Your task to perform on an android device: delete location history Image 0: 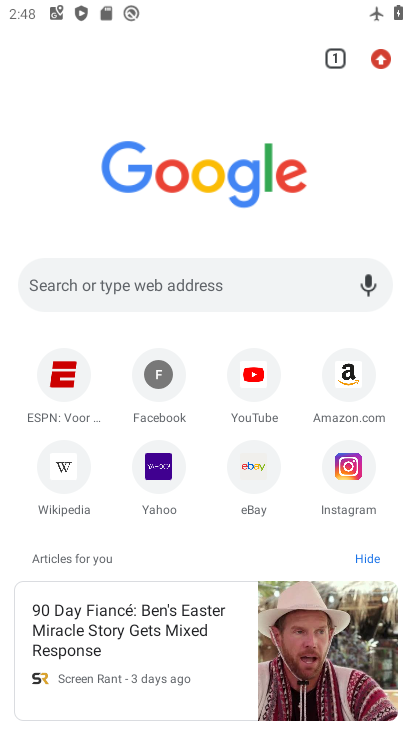
Step 0: press home button
Your task to perform on an android device: delete location history Image 1: 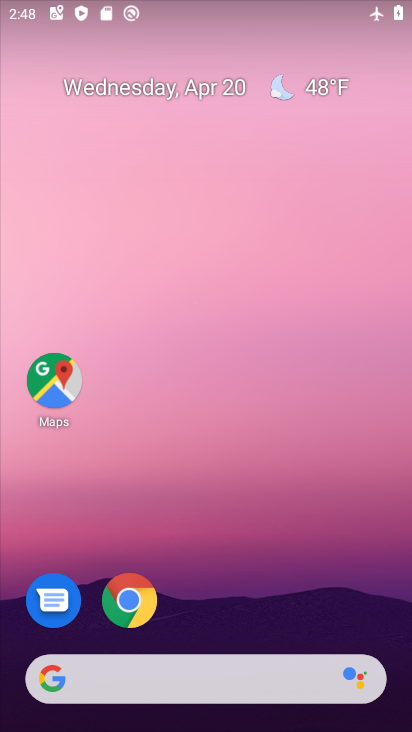
Step 1: click (28, 380)
Your task to perform on an android device: delete location history Image 2: 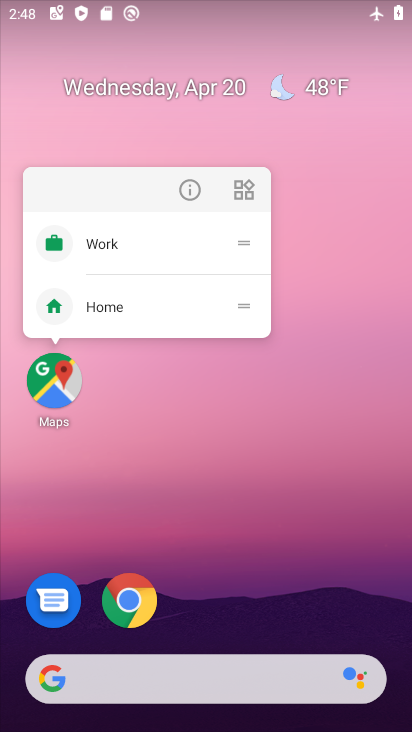
Step 2: click (28, 380)
Your task to perform on an android device: delete location history Image 3: 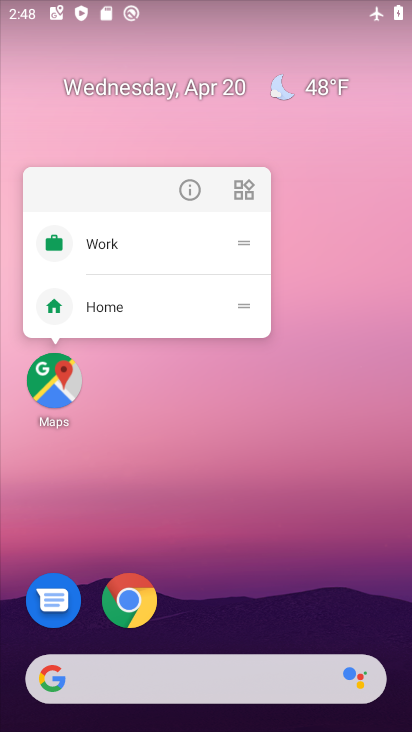
Step 3: click (43, 383)
Your task to perform on an android device: delete location history Image 4: 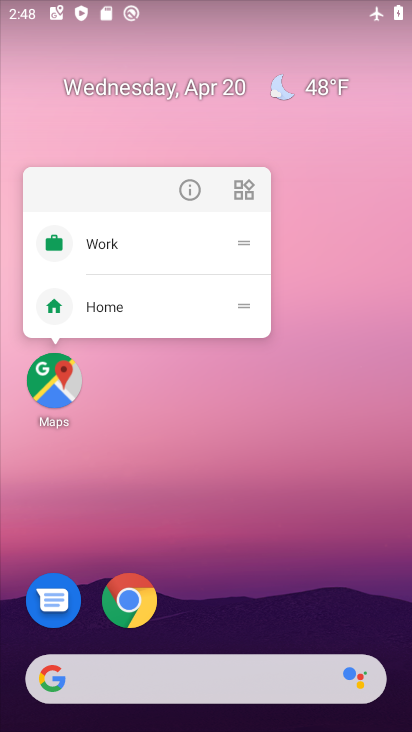
Step 4: click (44, 379)
Your task to perform on an android device: delete location history Image 5: 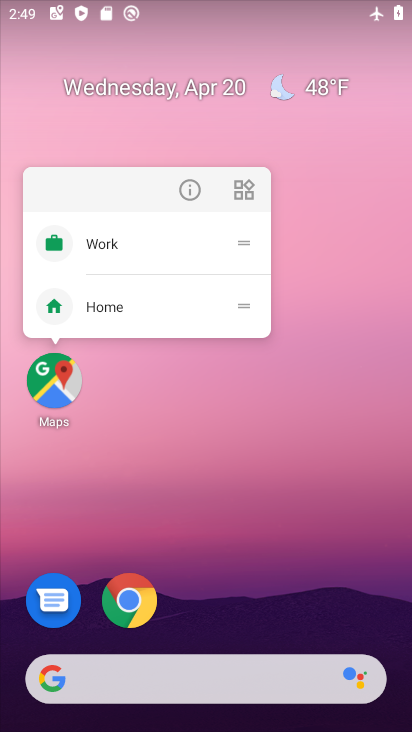
Step 5: click (44, 379)
Your task to perform on an android device: delete location history Image 6: 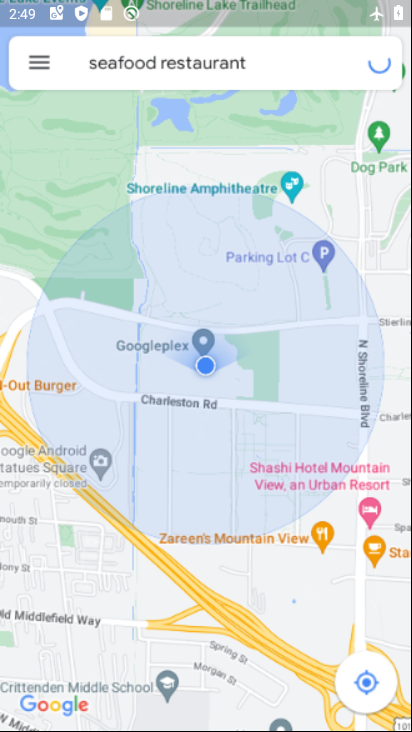
Step 6: click (44, 379)
Your task to perform on an android device: delete location history Image 7: 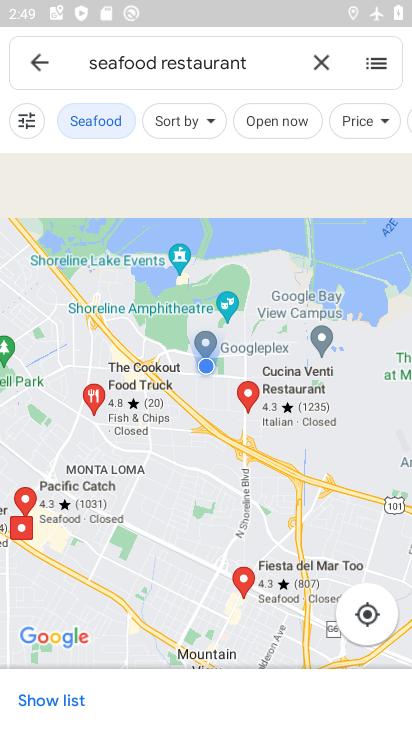
Step 7: click (325, 66)
Your task to perform on an android device: delete location history Image 8: 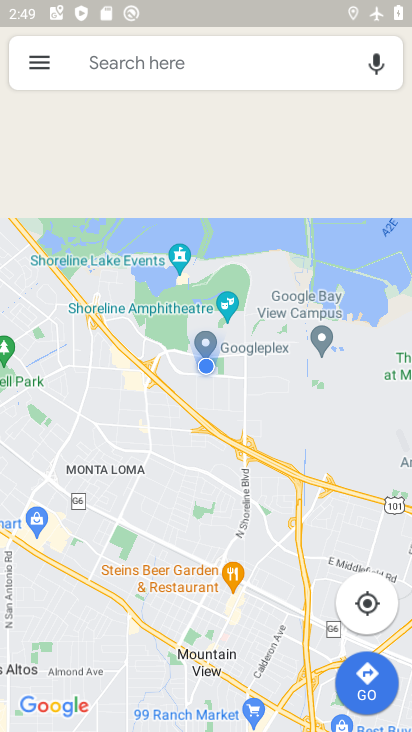
Step 8: click (28, 51)
Your task to perform on an android device: delete location history Image 9: 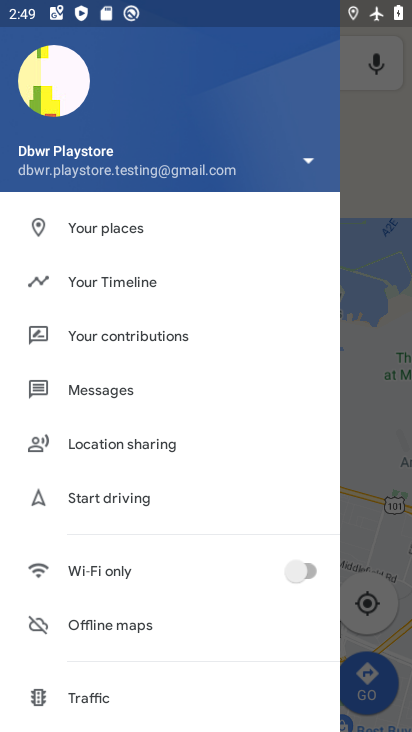
Step 9: click (116, 285)
Your task to perform on an android device: delete location history Image 10: 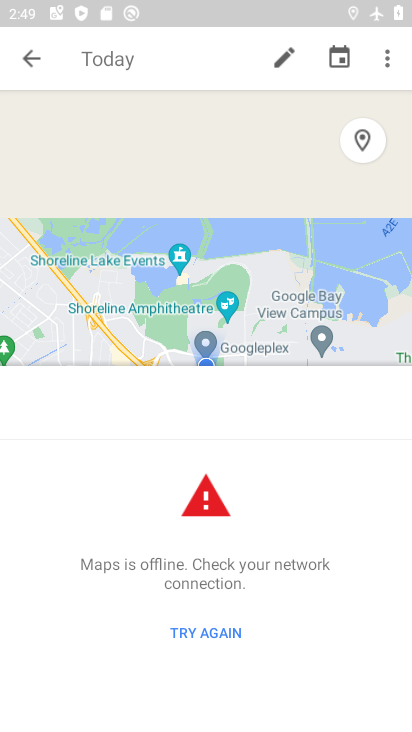
Step 10: click (382, 62)
Your task to perform on an android device: delete location history Image 11: 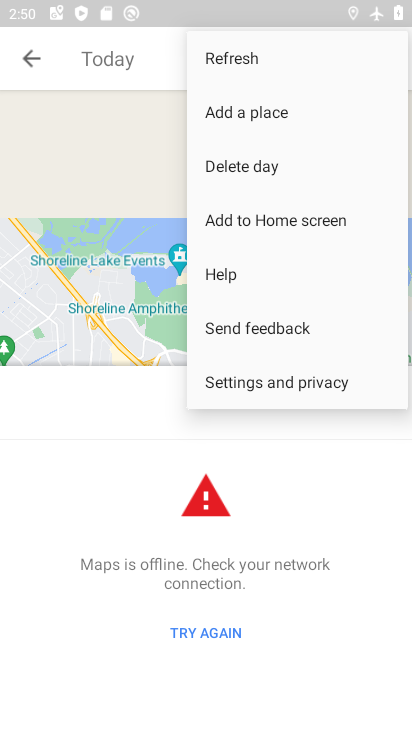
Step 11: click (244, 388)
Your task to perform on an android device: delete location history Image 12: 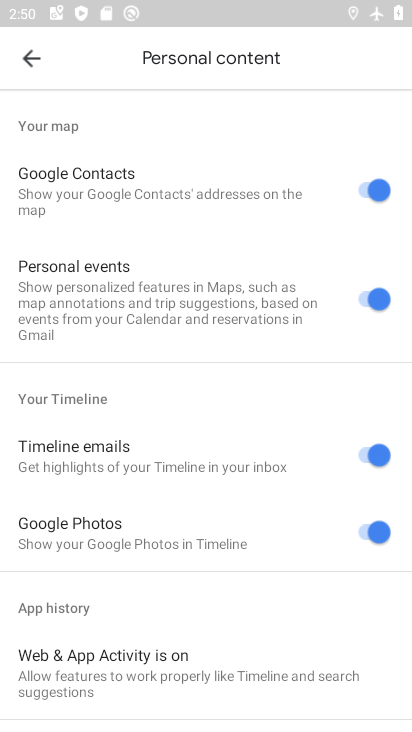
Step 12: drag from (124, 602) to (147, 203)
Your task to perform on an android device: delete location history Image 13: 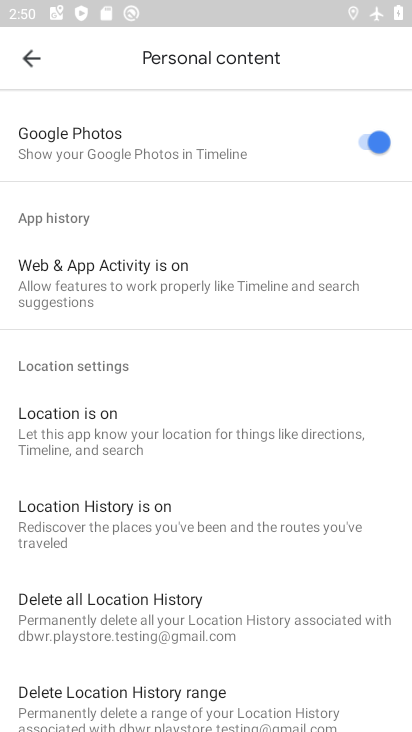
Step 13: drag from (127, 486) to (172, 195)
Your task to perform on an android device: delete location history Image 14: 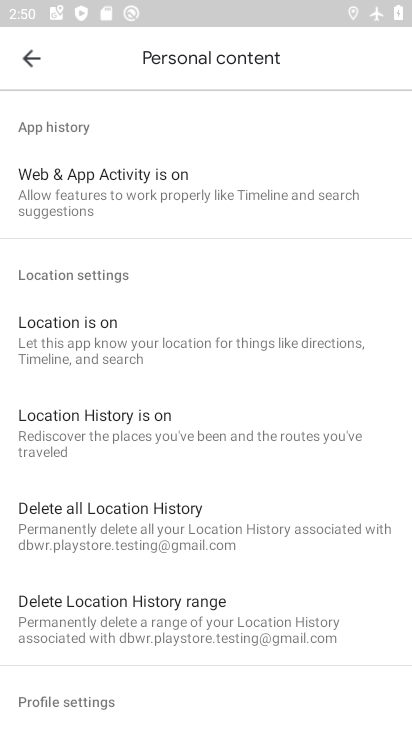
Step 14: click (94, 519)
Your task to perform on an android device: delete location history Image 15: 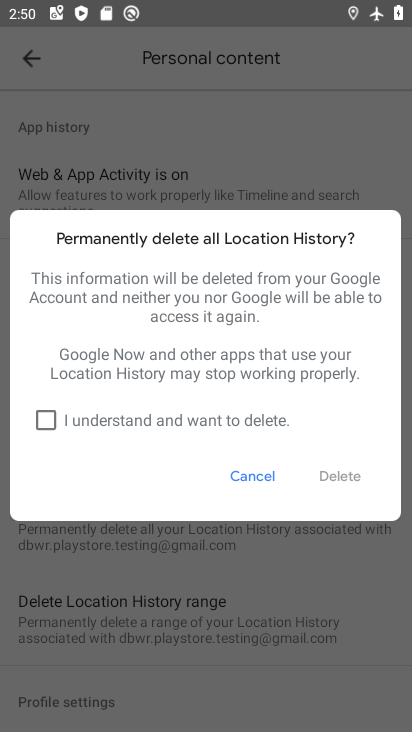
Step 15: click (39, 429)
Your task to perform on an android device: delete location history Image 16: 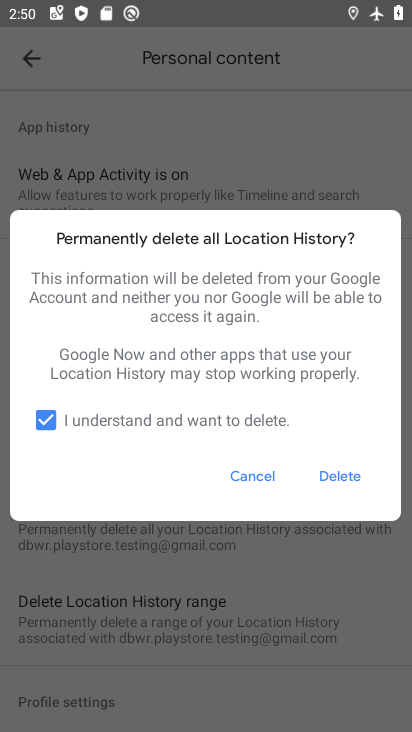
Step 16: click (339, 476)
Your task to perform on an android device: delete location history Image 17: 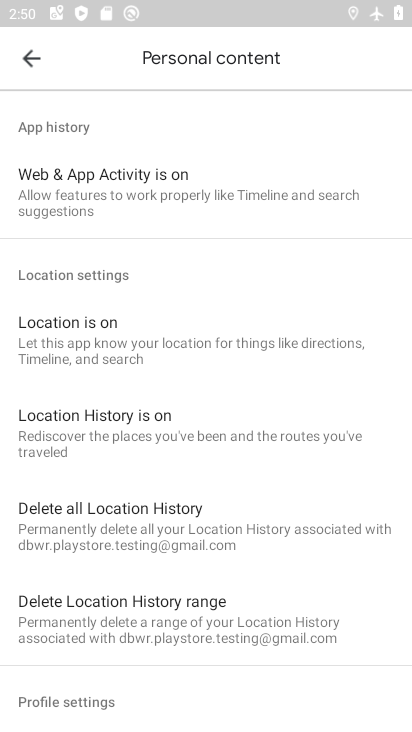
Step 17: task complete